Your task to perform on an android device: Go to Amazon Image 0: 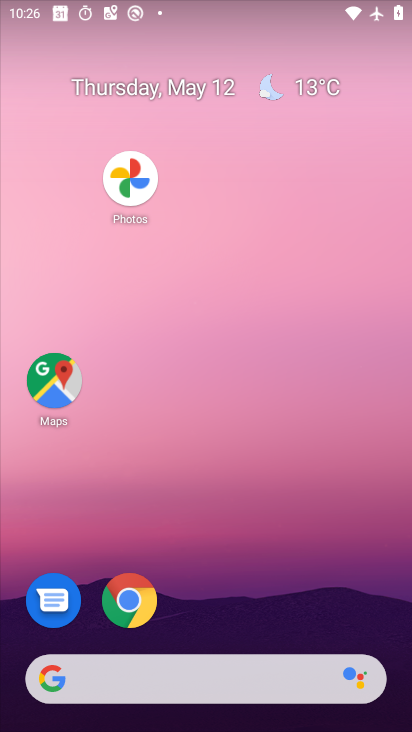
Step 0: drag from (359, 633) to (259, 104)
Your task to perform on an android device: Go to Amazon Image 1: 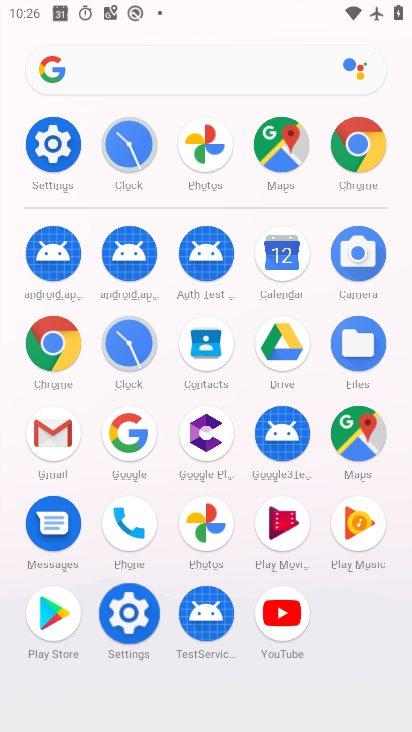
Step 1: click (372, 133)
Your task to perform on an android device: Go to Amazon Image 2: 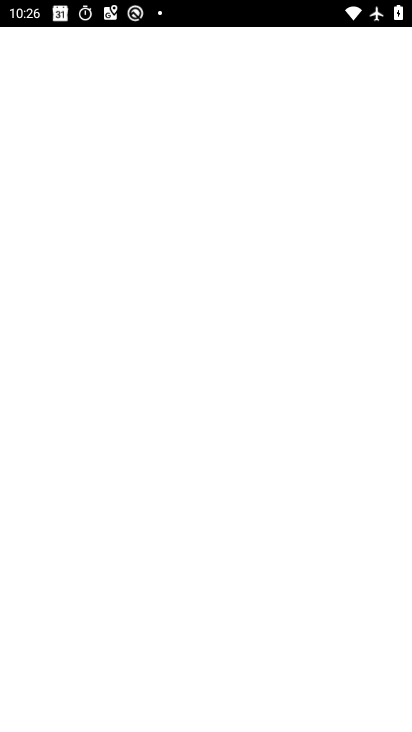
Step 2: click (356, 133)
Your task to perform on an android device: Go to Amazon Image 3: 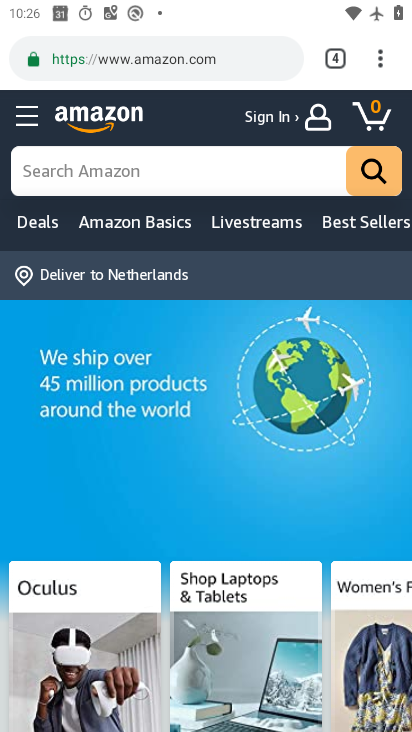
Step 3: task complete